Your task to perform on an android device: turn off data saver in the chrome app Image 0: 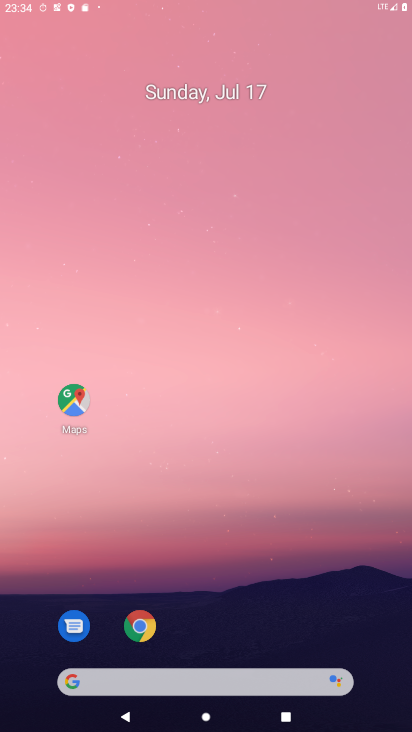
Step 0: click (240, 170)
Your task to perform on an android device: turn off data saver in the chrome app Image 1: 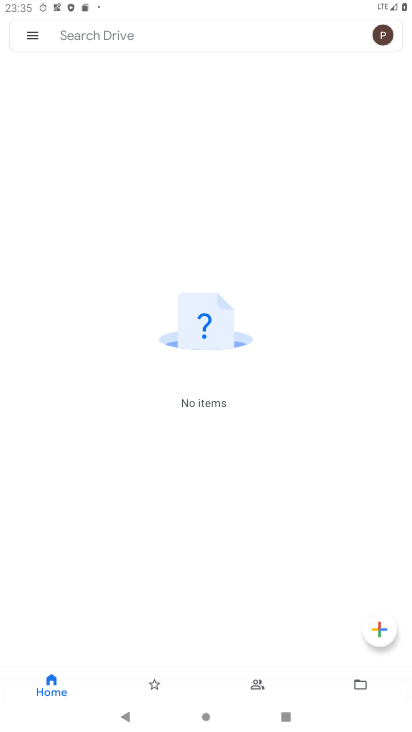
Step 1: press home button
Your task to perform on an android device: turn off data saver in the chrome app Image 2: 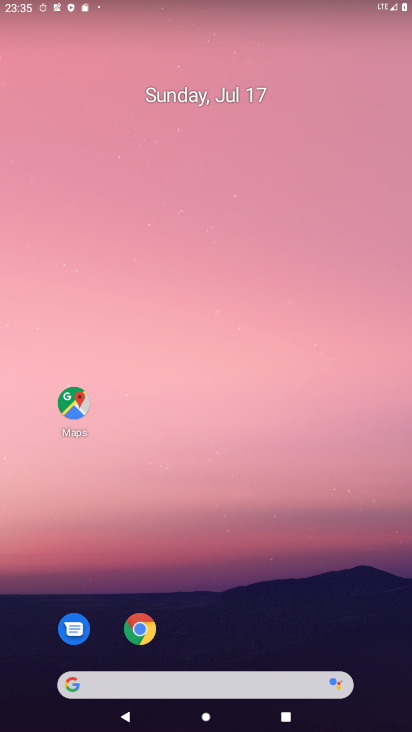
Step 2: click (139, 632)
Your task to perform on an android device: turn off data saver in the chrome app Image 3: 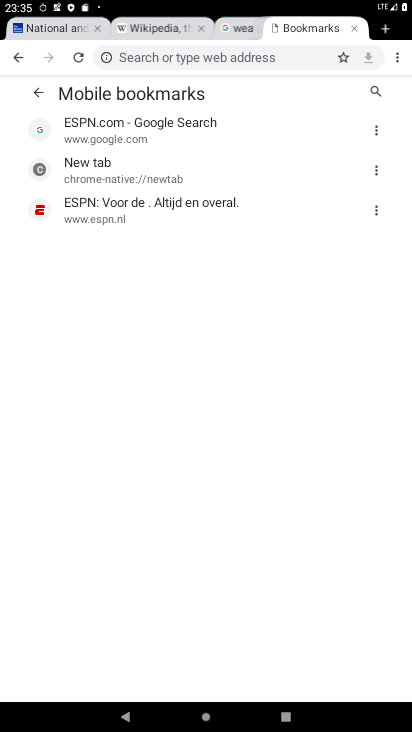
Step 3: click (397, 59)
Your task to perform on an android device: turn off data saver in the chrome app Image 4: 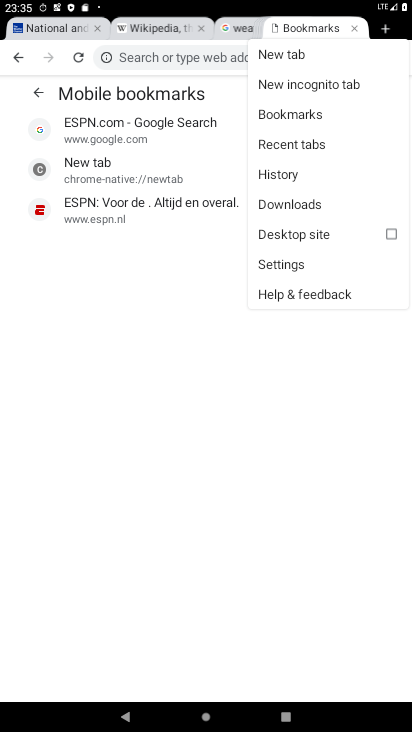
Step 4: click (286, 262)
Your task to perform on an android device: turn off data saver in the chrome app Image 5: 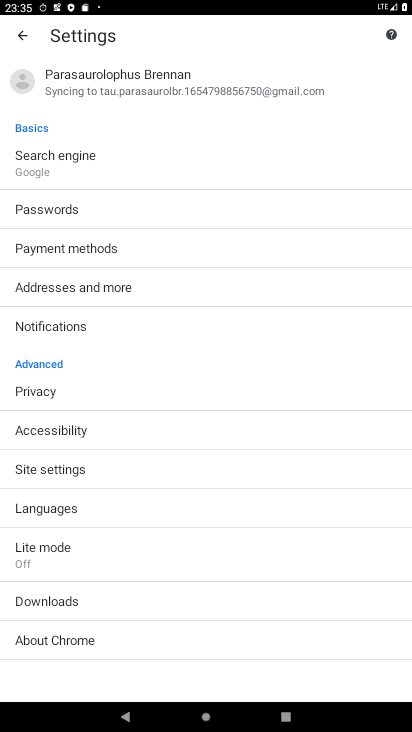
Step 5: click (33, 549)
Your task to perform on an android device: turn off data saver in the chrome app Image 6: 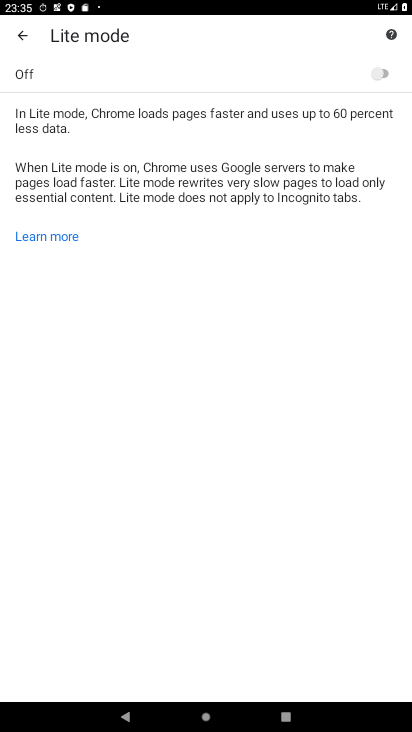
Step 6: task complete